Your task to perform on an android device: make emails show in primary in the gmail app Image 0: 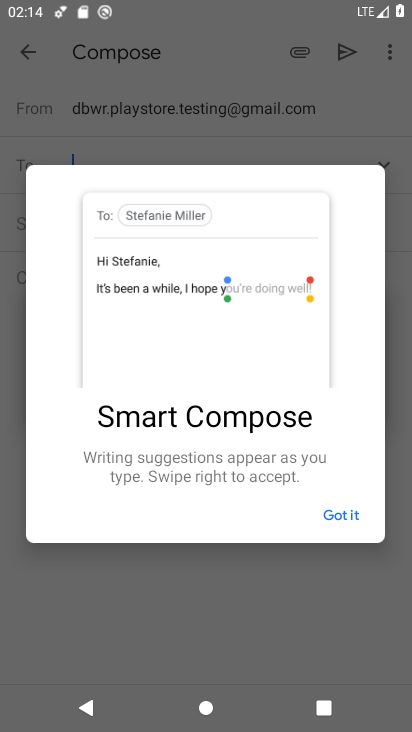
Step 0: press home button
Your task to perform on an android device: make emails show in primary in the gmail app Image 1: 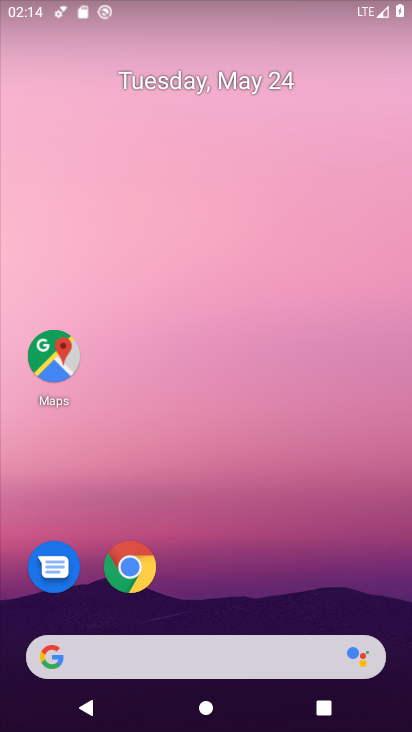
Step 1: drag from (199, 578) to (256, 239)
Your task to perform on an android device: make emails show in primary in the gmail app Image 2: 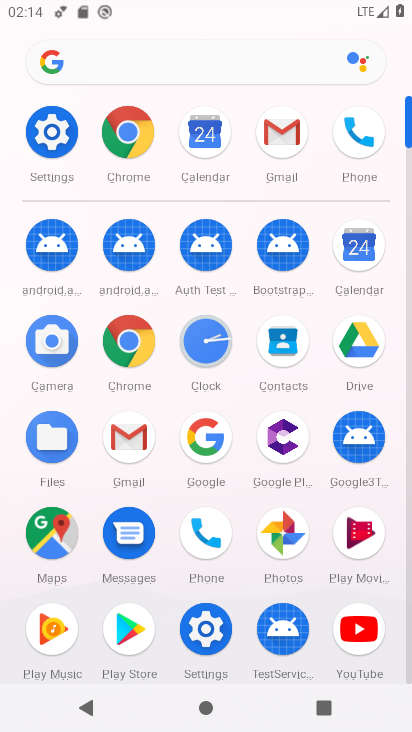
Step 2: click (140, 457)
Your task to perform on an android device: make emails show in primary in the gmail app Image 3: 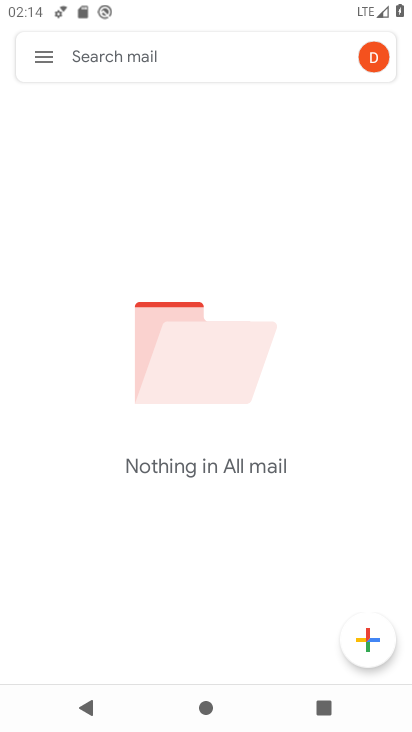
Step 3: click (47, 53)
Your task to perform on an android device: make emails show in primary in the gmail app Image 4: 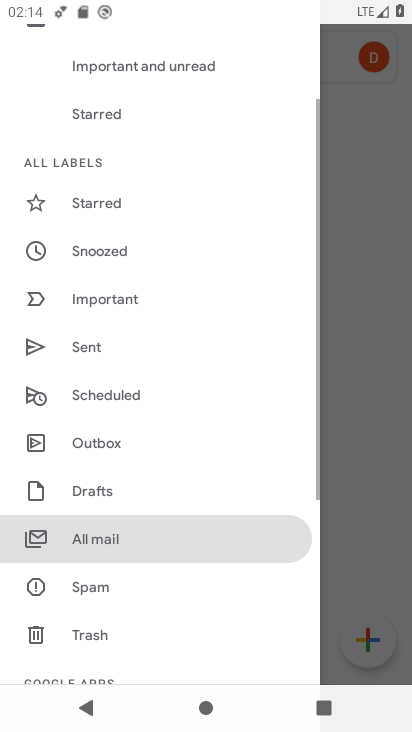
Step 4: drag from (109, 606) to (160, 333)
Your task to perform on an android device: make emails show in primary in the gmail app Image 5: 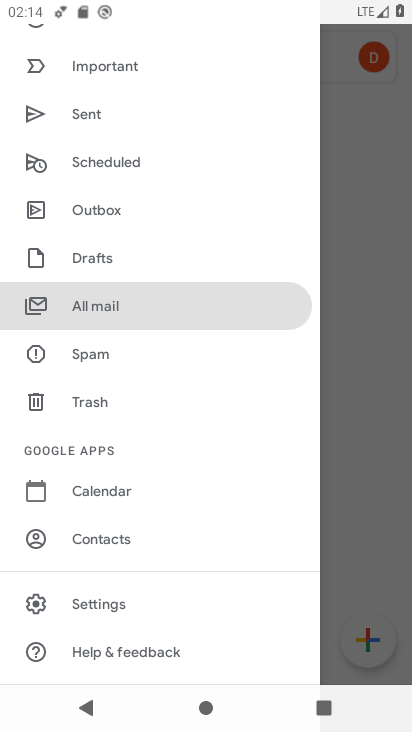
Step 5: click (99, 602)
Your task to perform on an android device: make emails show in primary in the gmail app Image 6: 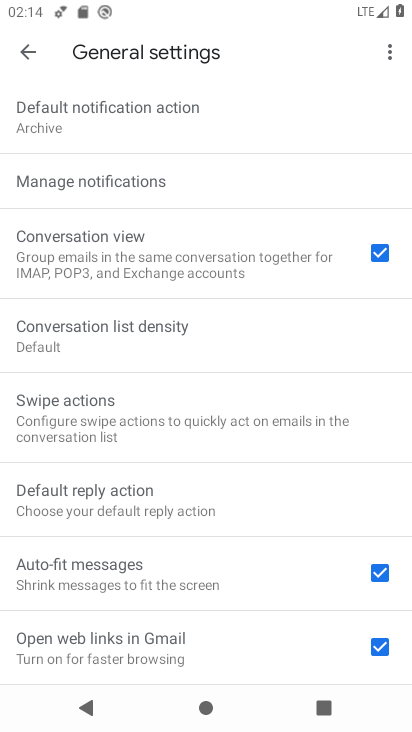
Step 6: click (25, 57)
Your task to perform on an android device: make emails show in primary in the gmail app Image 7: 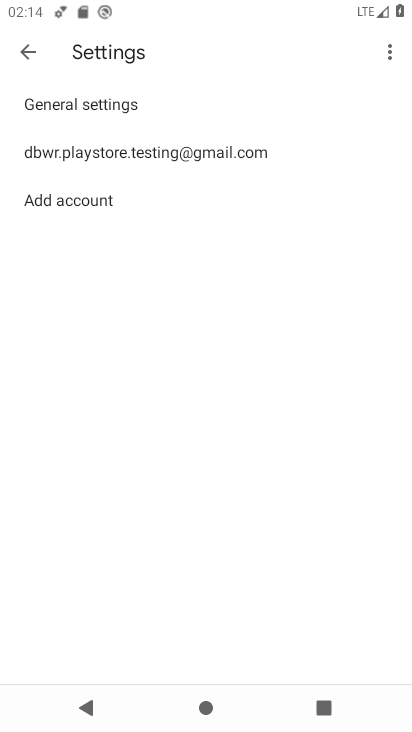
Step 7: click (175, 155)
Your task to perform on an android device: make emails show in primary in the gmail app Image 8: 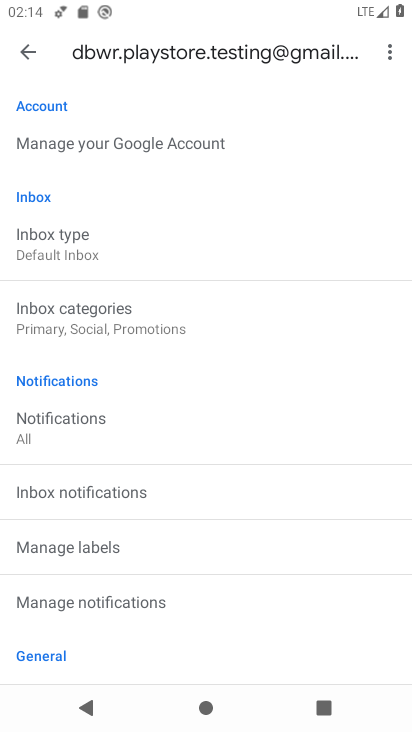
Step 8: click (75, 249)
Your task to perform on an android device: make emails show in primary in the gmail app Image 9: 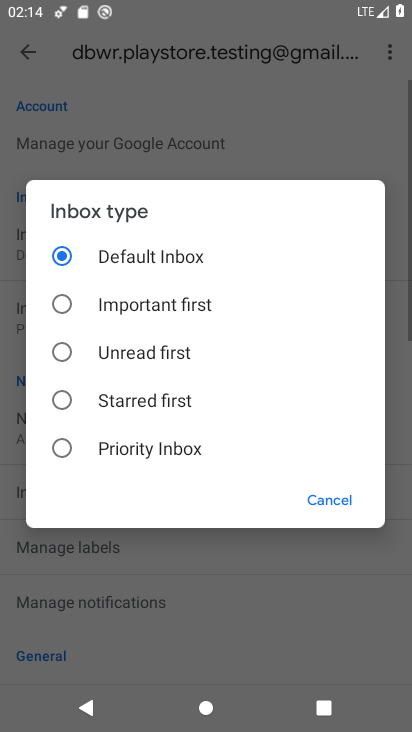
Step 9: click (98, 249)
Your task to perform on an android device: make emails show in primary in the gmail app Image 10: 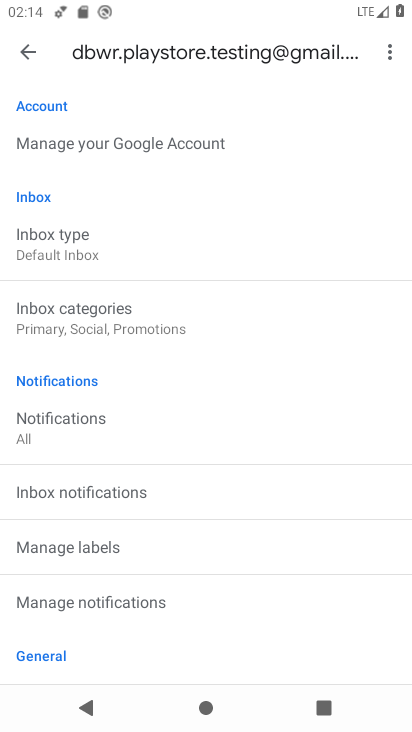
Step 10: click (101, 316)
Your task to perform on an android device: make emails show in primary in the gmail app Image 11: 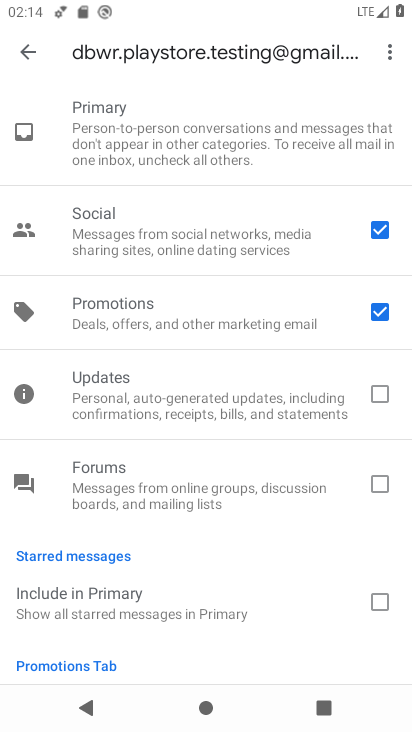
Step 11: click (372, 301)
Your task to perform on an android device: make emails show in primary in the gmail app Image 12: 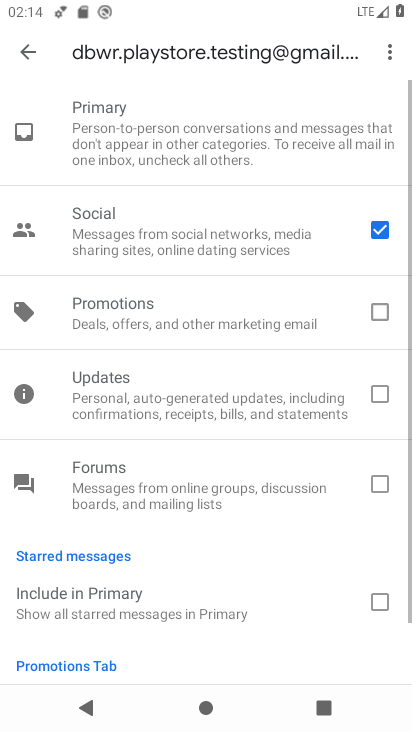
Step 12: click (374, 240)
Your task to perform on an android device: make emails show in primary in the gmail app Image 13: 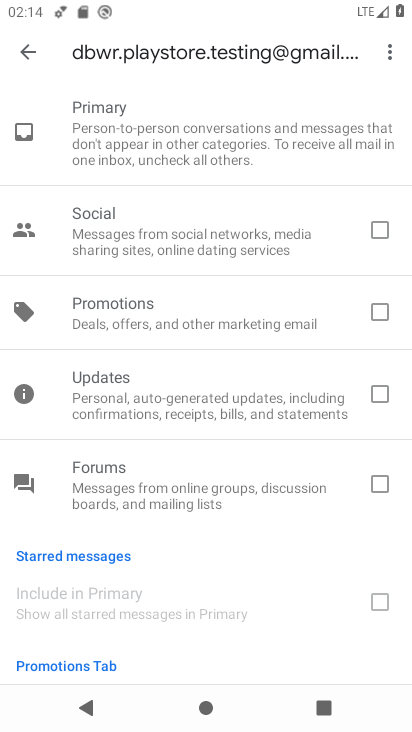
Step 13: task complete